Your task to perform on an android device: How do I get to the nearest JCPenney? Image 0: 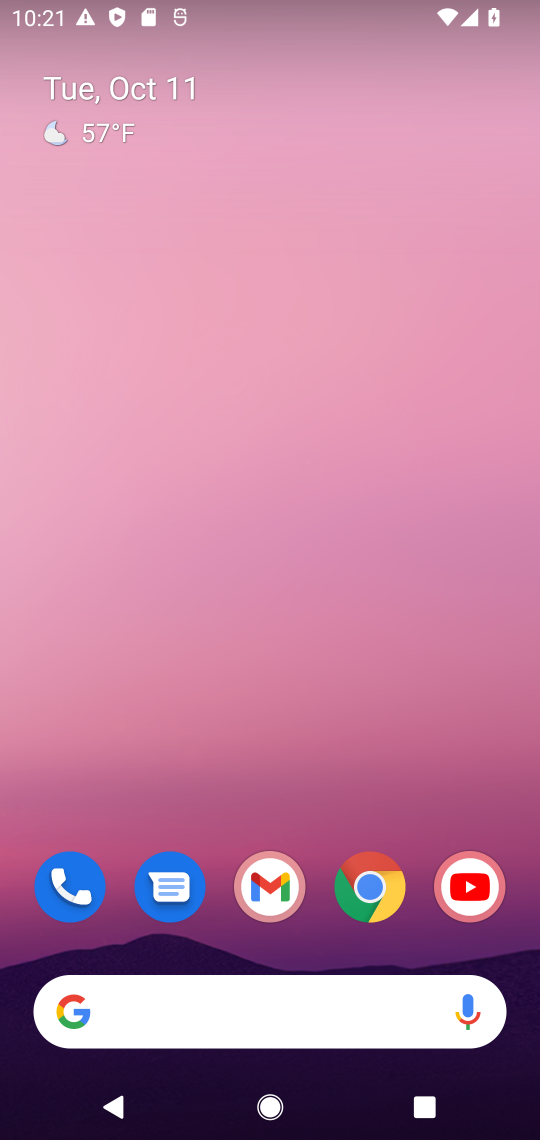
Step 0: press home button
Your task to perform on an android device: How do I get to the nearest JCPenney? Image 1: 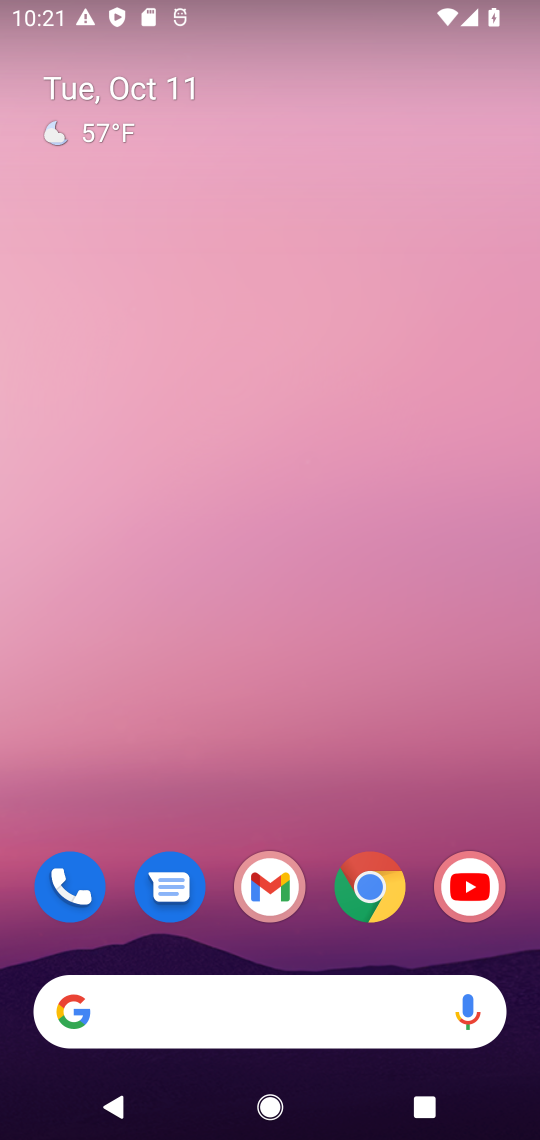
Step 1: click (209, 993)
Your task to perform on an android device: How do I get to the nearest JCPenney? Image 2: 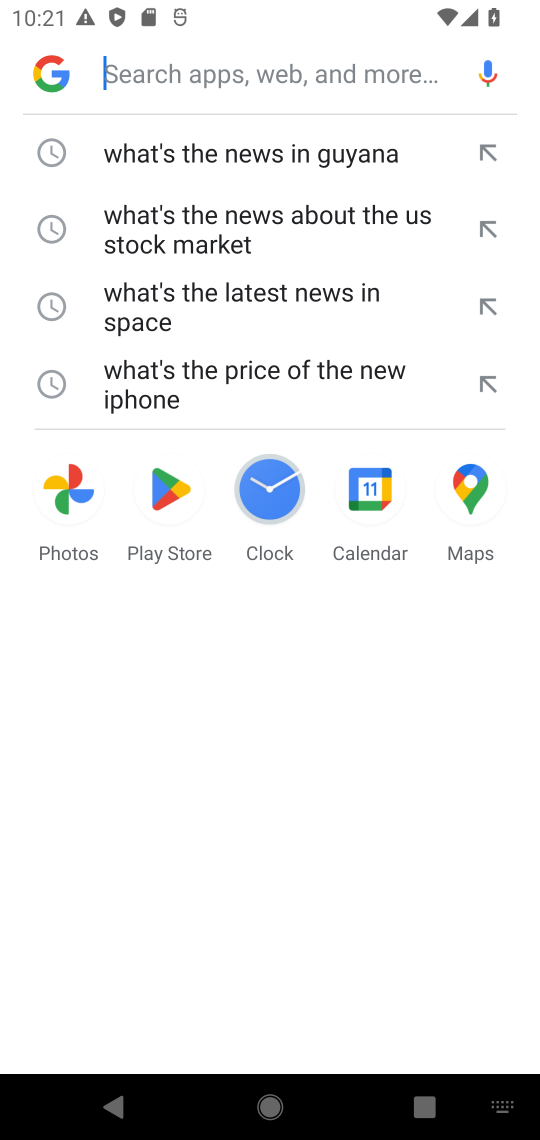
Step 2: type "How do I get to the nearest JCPenney"
Your task to perform on an android device: How do I get to the nearest JCPenney? Image 3: 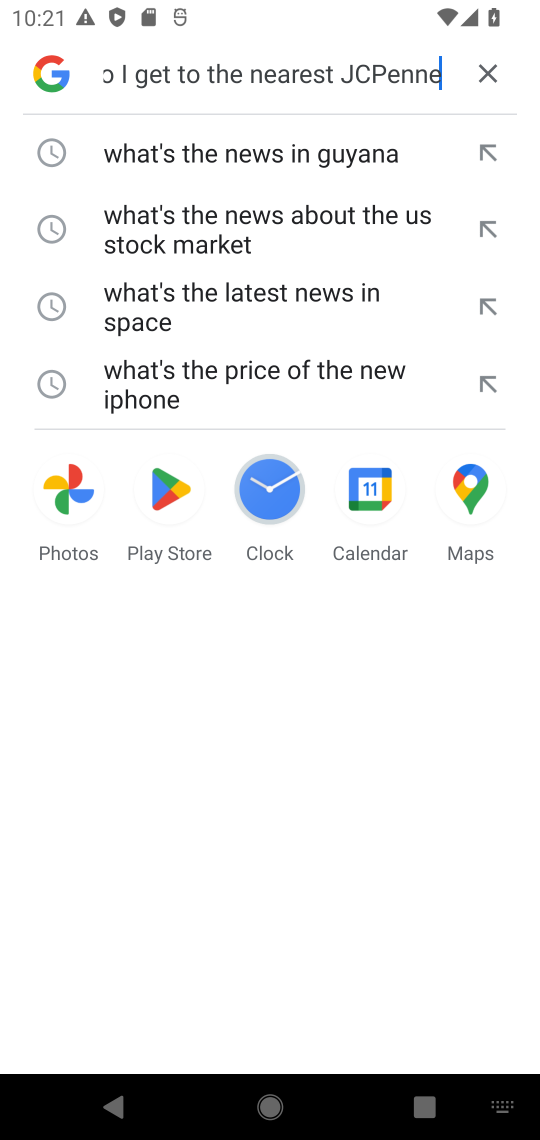
Step 3: press enter
Your task to perform on an android device: How do I get to the nearest JCPenney? Image 4: 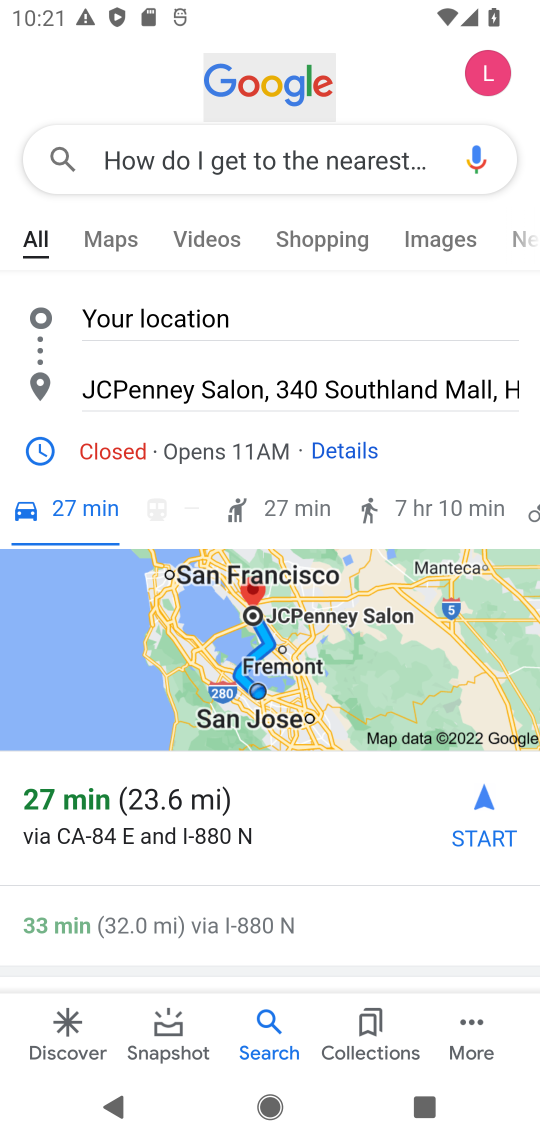
Step 4: drag from (325, 733) to (352, 372)
Your task to perform on an android device: How do I get to the nearest JCPenney? Image 5: 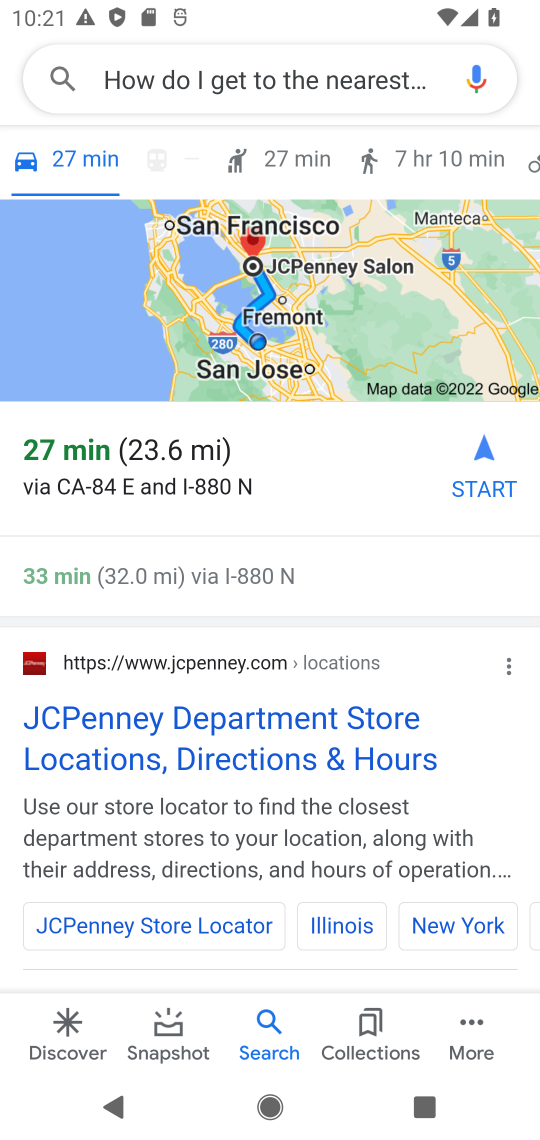
Step 5: click (253, 760)
Your task to perform on an android device: How do I get to the nearest JCPenney? Image 6: 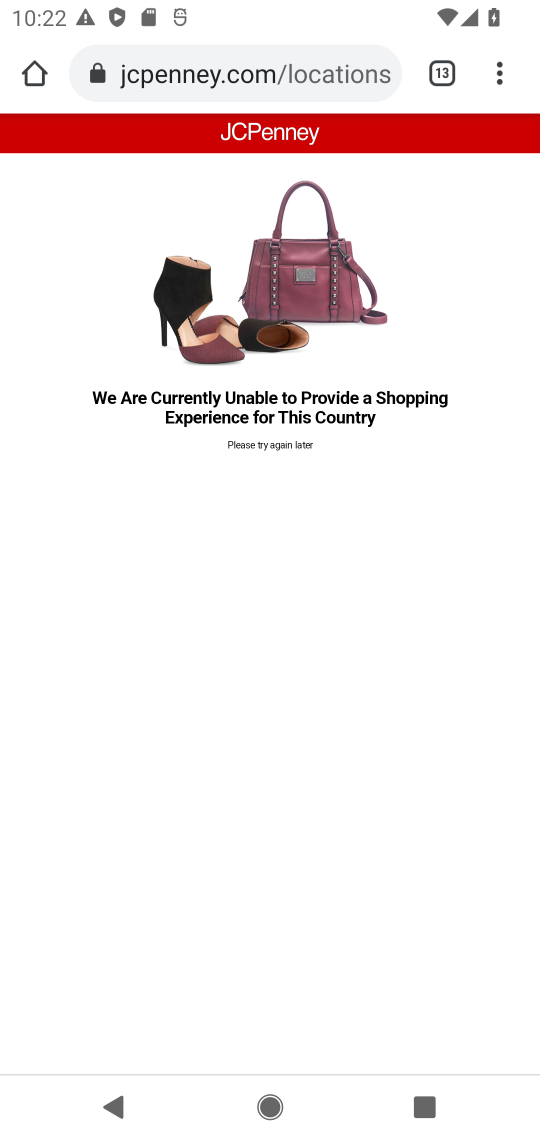
Step 6: task complete